Your task to perform on an android device: Open accessibility settings Image 0: 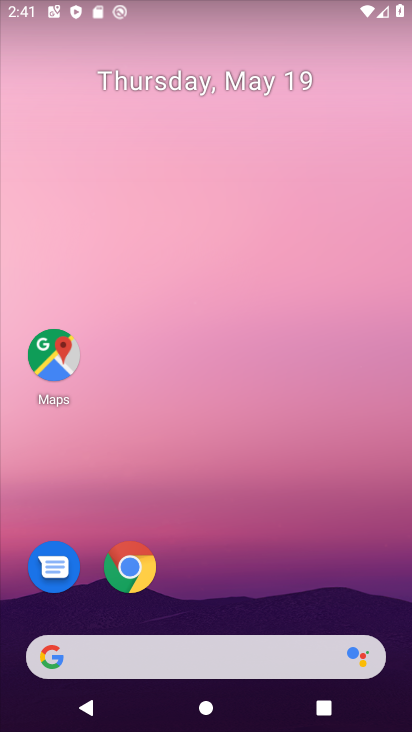
Step 0: drag from (230, 724) to (233, 117)
Your task to perform on an android device: Open accessibility settings Image 1: 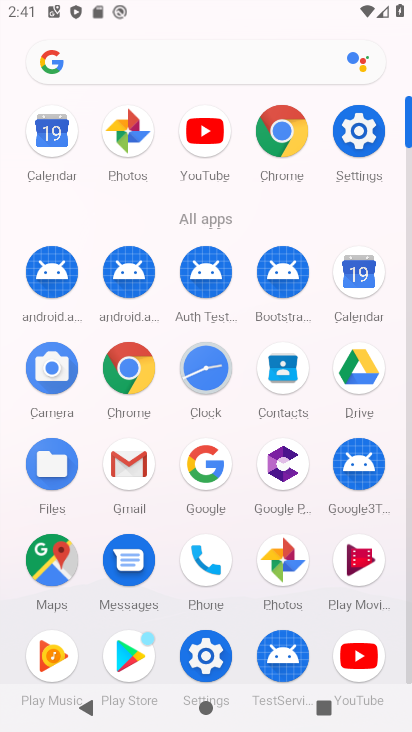
Step 1: click (363, 137)
Your task to perform on an android device: Open accessibility settings Image 2: 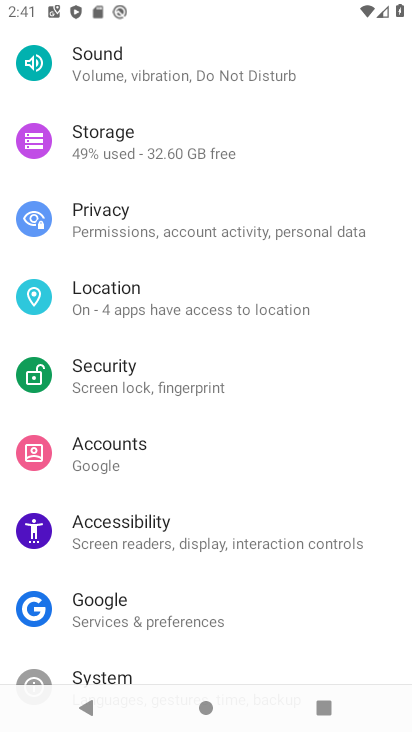
Step 2: click (154, 526)
Your task to perform on an android device: Open accessibility settings Image 3: 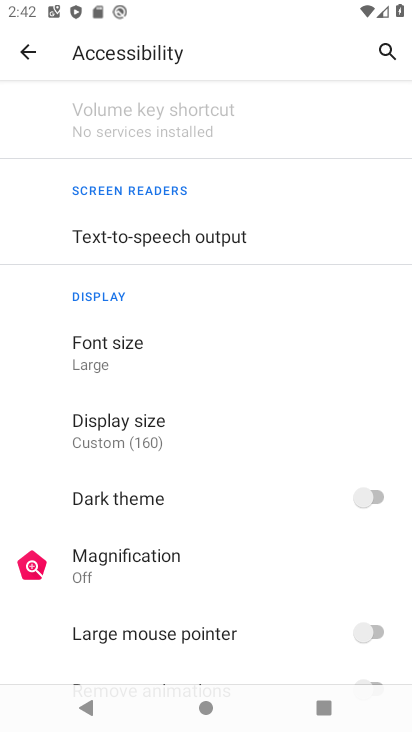
Step 3: task complete